Your task to perform on an android device: Open network settings Image 0: 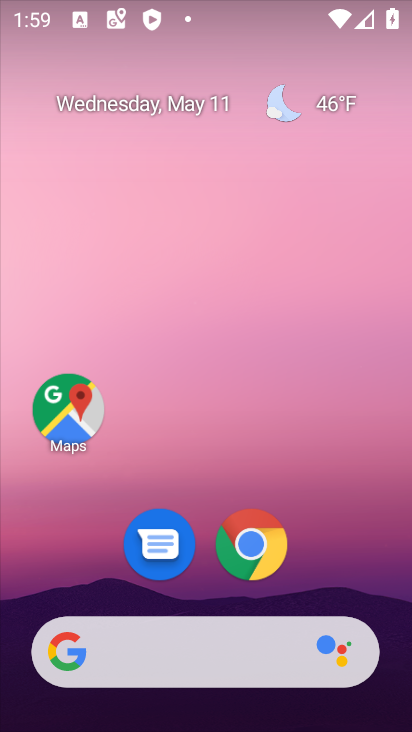
Step 0: drag from (394, 649) to (342, 75)
Your task to perform on an android device: Open network settings Image 1: 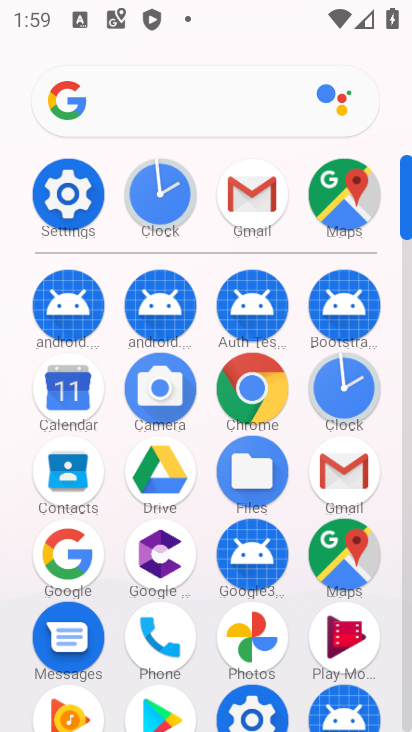
Step 1: click (406, 709)
Your task to perform on an android device: Open network settings Image 2: 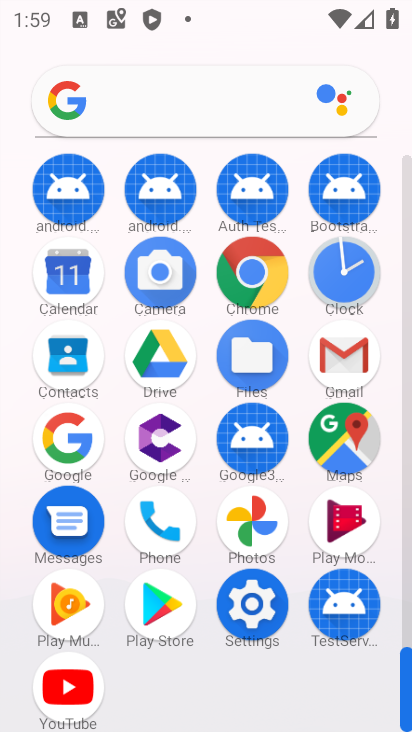
Step 2: click (251, 605)
Your task to perform on an android device: Open network settings Image 3: 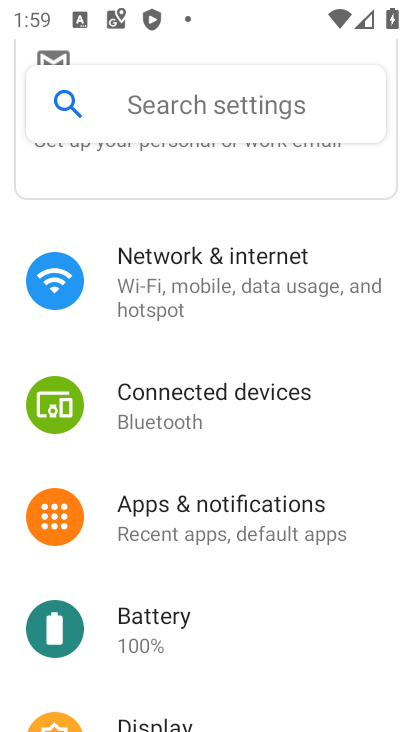
Step 3: click (165, 265)
Your task to perform on an android device: Open network settings Image 4: 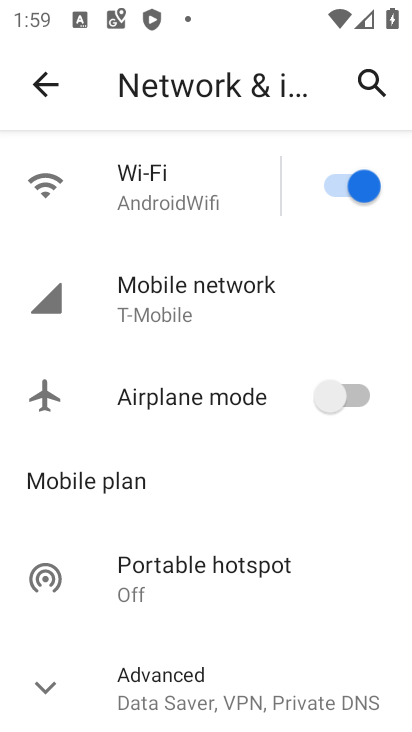
Step 4: click (156, 292)
Your task to perform on an android device: Open network settings Image 5: 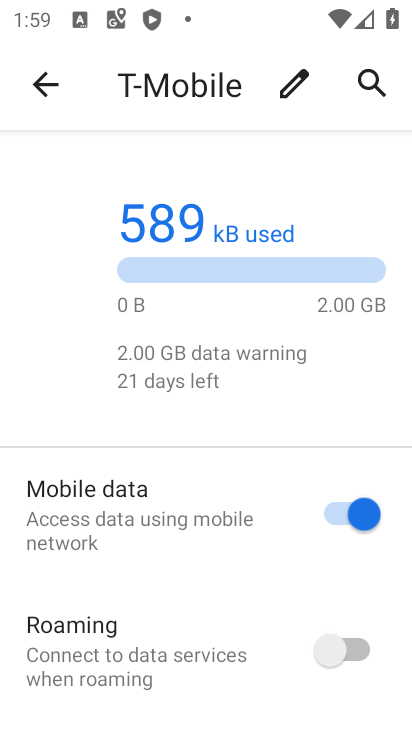
Step 5: task complete